Your task to perform on an android device: toggle wifi Image 0: 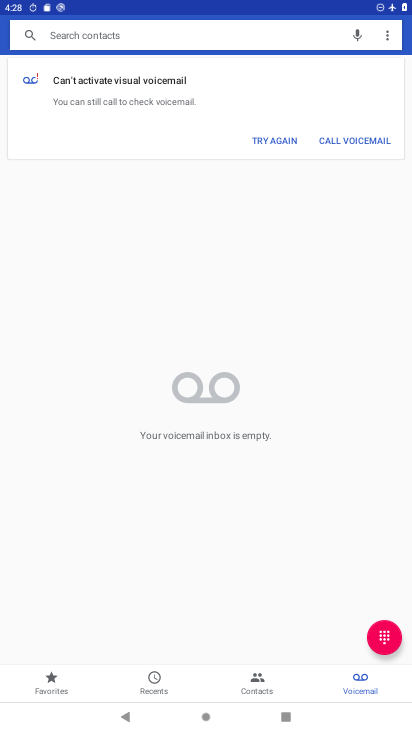
Step 0: press home button
Your task to perform on an android device: toggle wifi Image 1: 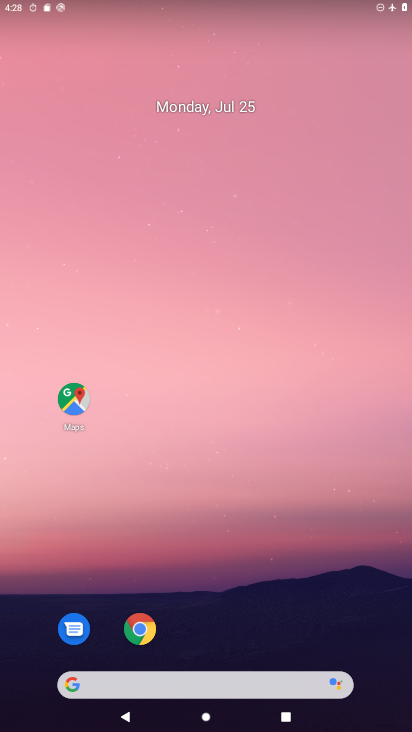
Step 1: drag from (293, 677) to (358, 31)
Your task to perform on an android device: toggle wifi Image 2: 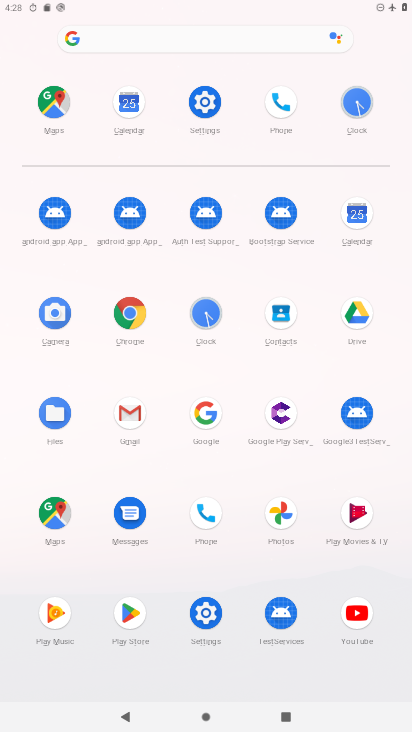
Step 2: click (202, 105)
Your task to perform on an android device: toggle wifi Image 3: 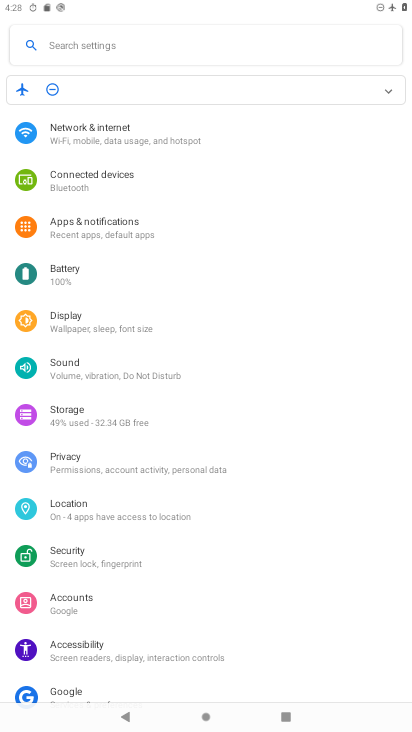
Step 3: click (154, 134)
Your task to perform on an android device: toggle wifi Image 4: 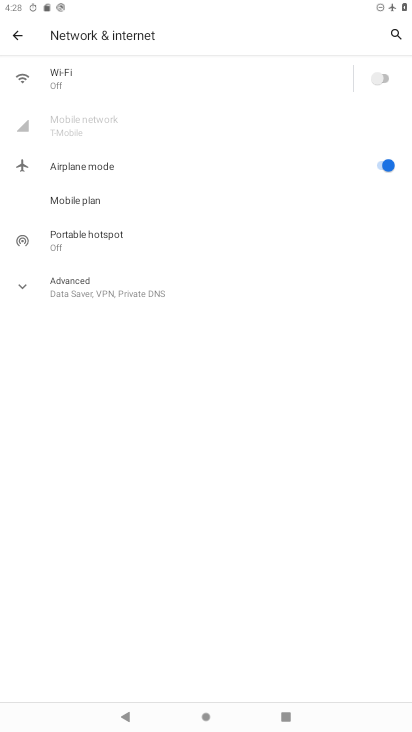
Step 4: click (385, 76)
Your task to perform on an android device: toggle wifi Image 5: 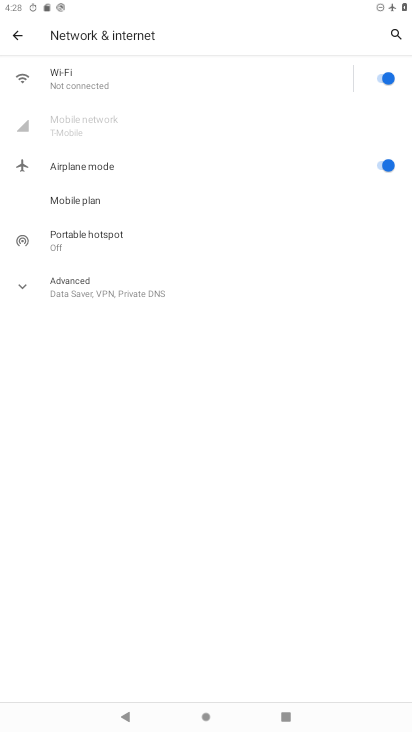
Step 5: task complete